Your task to perform on an android device: Open maps Image 0: 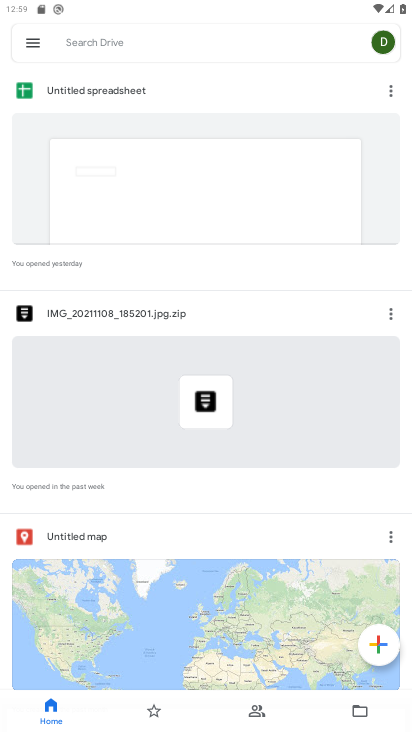
Step 0: press home button
Your task to perform on an android device: Open maps Image 1: 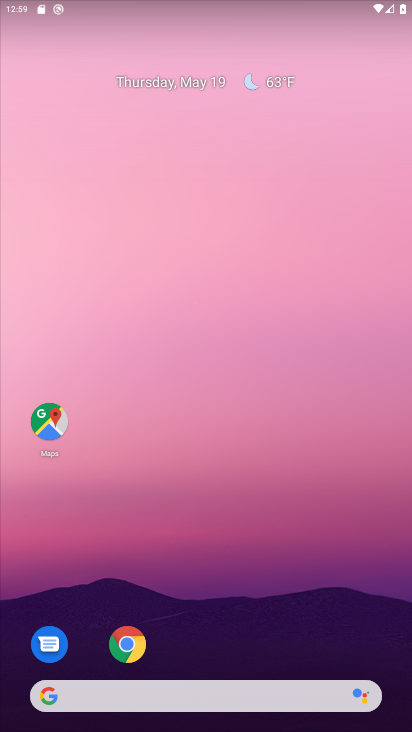
Step 1: click (57, 412)
Your task to perform on an android device: Open maps Image 2: 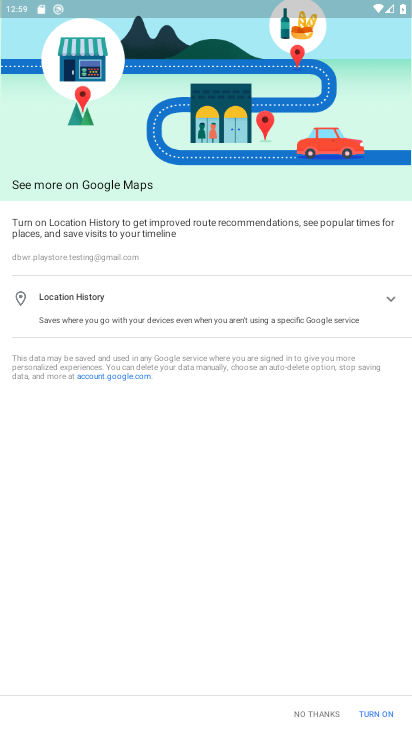
Step 2: task complete